Your task to perform on an android device: open chrome privacy settings Image 0: 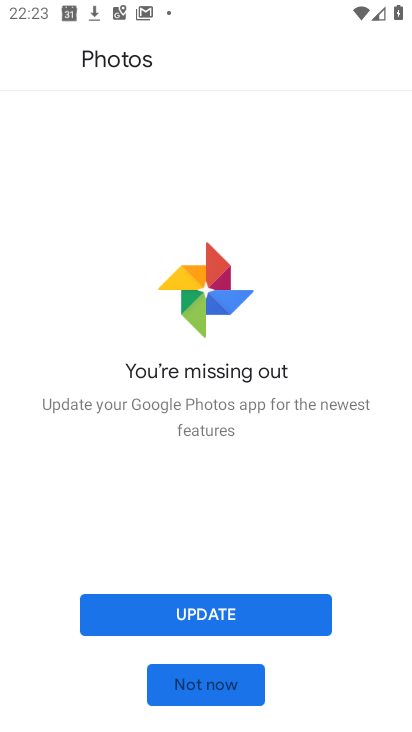
Step 0: press home button
Your task to perform on an android device: open chrome privacy settings Image 1: 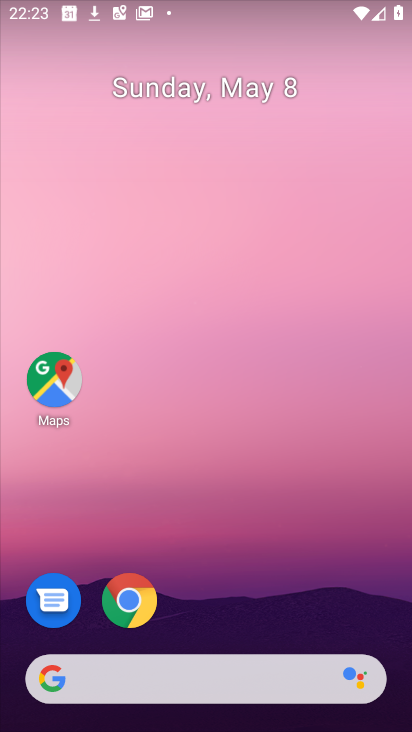
Step 1: drag from (308, 689) to (188, 210)
Your task to perform on an android device: open chrome privacy settings Image 2: 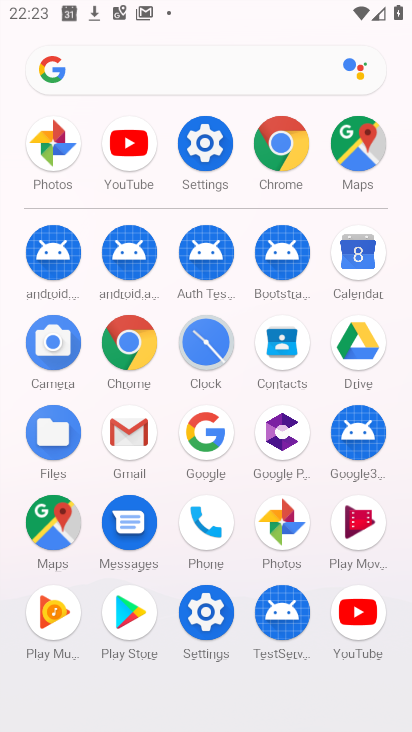
Step 2: click (208, 175)
Your task to perform on an android device: open chrome privacy settings Image 3: 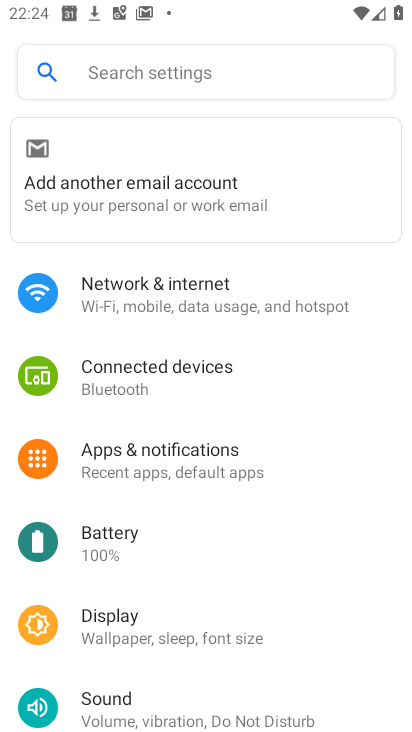
Step 3: drag from (211, 652) to (140, 483)
Your task to perform on an android device: open chrome privacy settings Image 4: 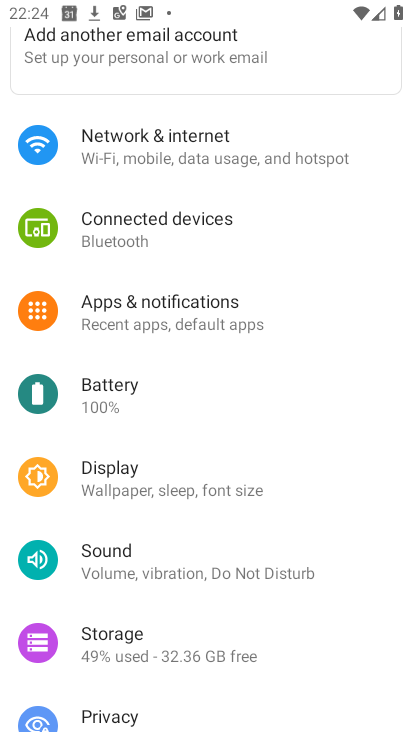
Step 4: click (121, 709)
Your task to perform on an android device: open chrome privacy settings Image 5: 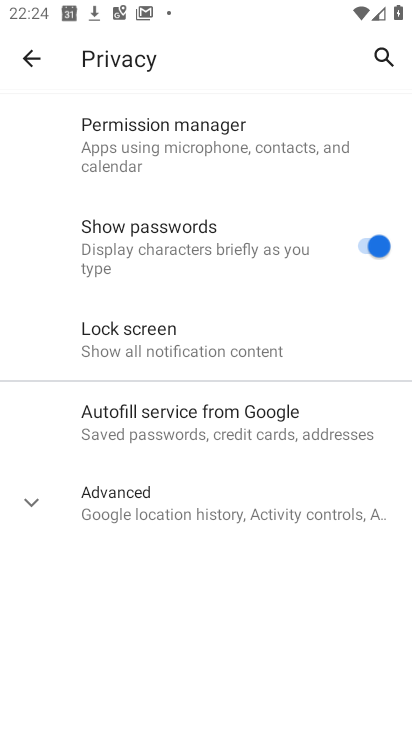
Step 5: task complete